Your task to perform on an android device: toggle priority inbox in the gmail app Image 0: 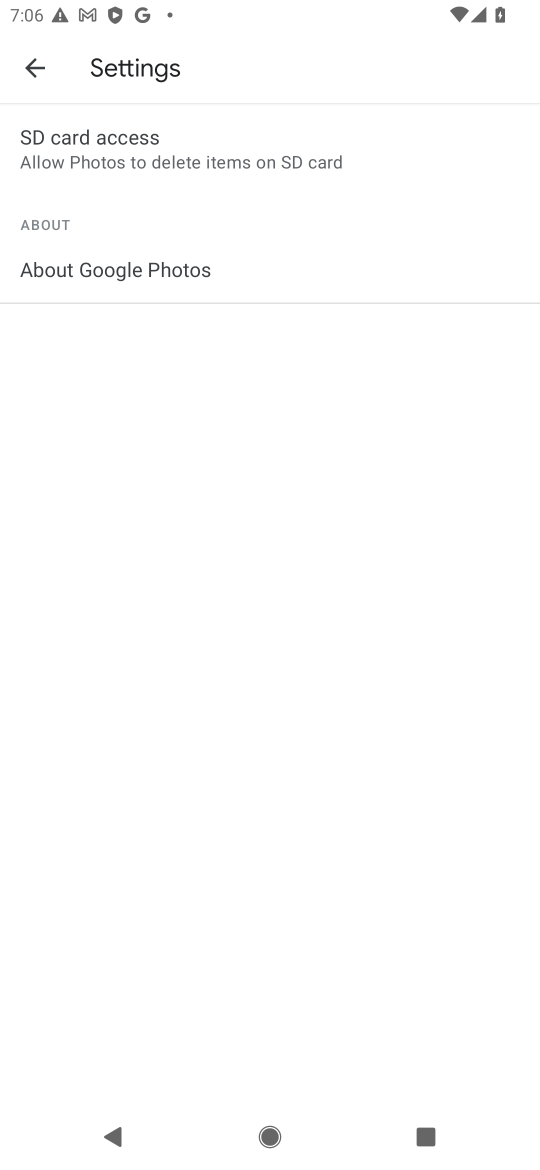
Step 0: press home button
Your task to perform on an android device: toggle priority inbox in the gmail app Image 1: 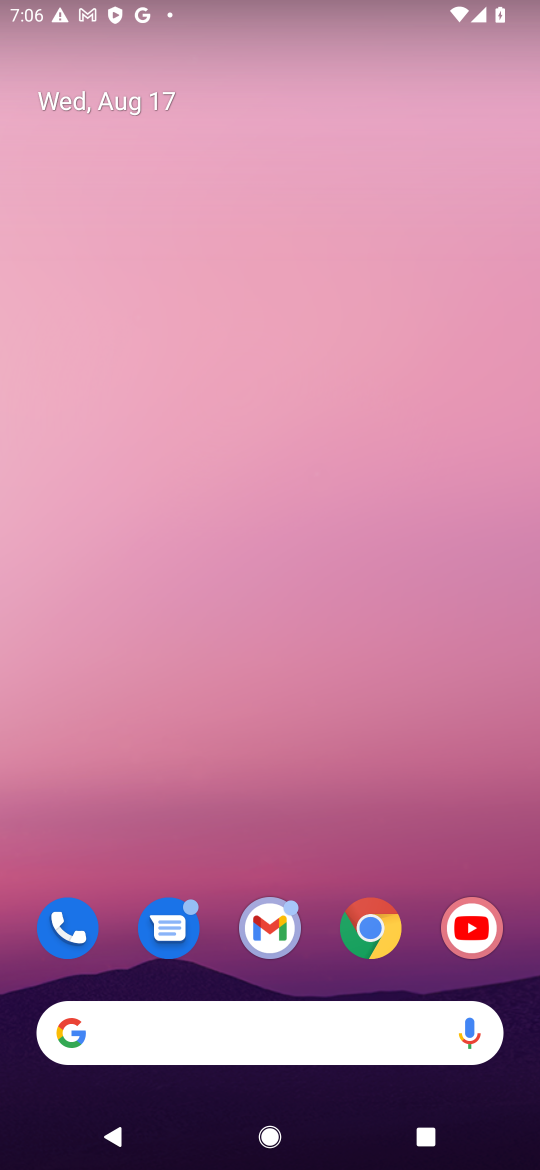
Step 1: click (286, 932)
Your task to perform on an android device: toggle priority inbox in the gmail app Image 2: 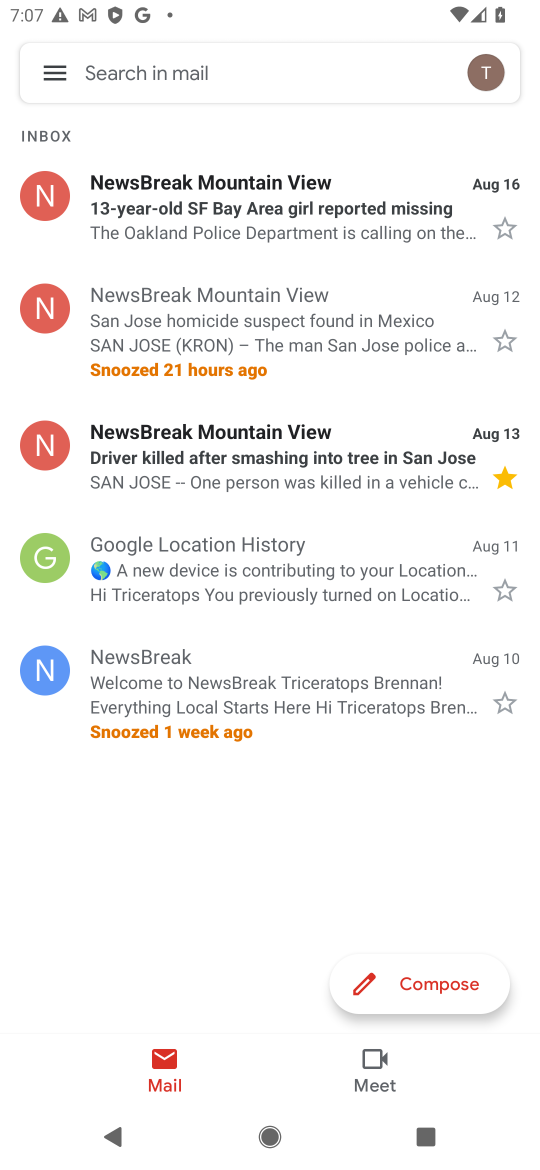
Step 2: click (320, 932)
Your task to perform on an android device: toggle priority inbox in the gmail app Image 3: 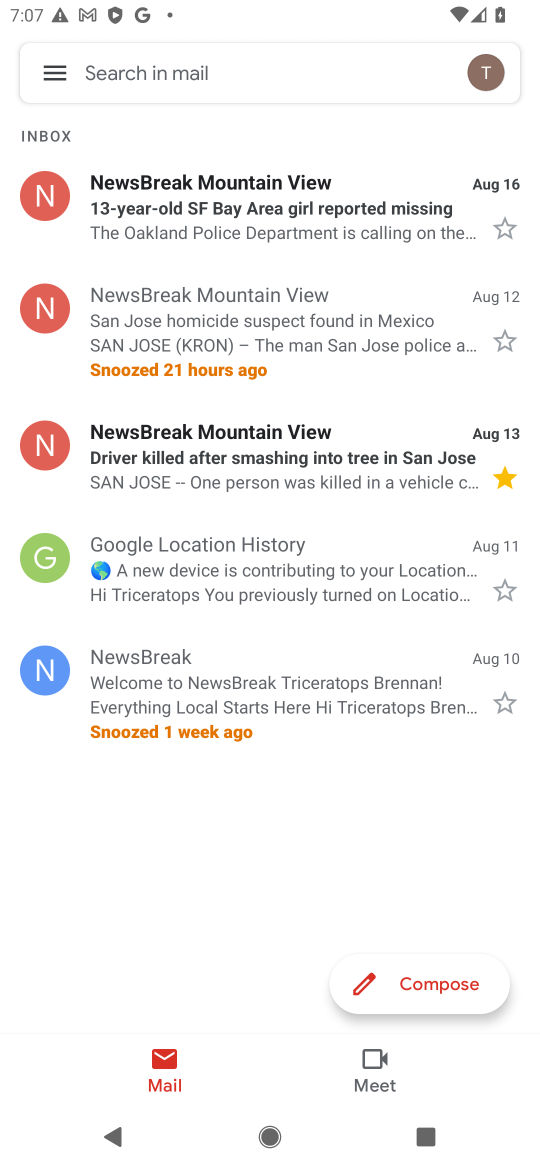
Step 3: click (51, 75)
Your task to perform on an android device: toggle priority inbox in the gmail app Image 4: 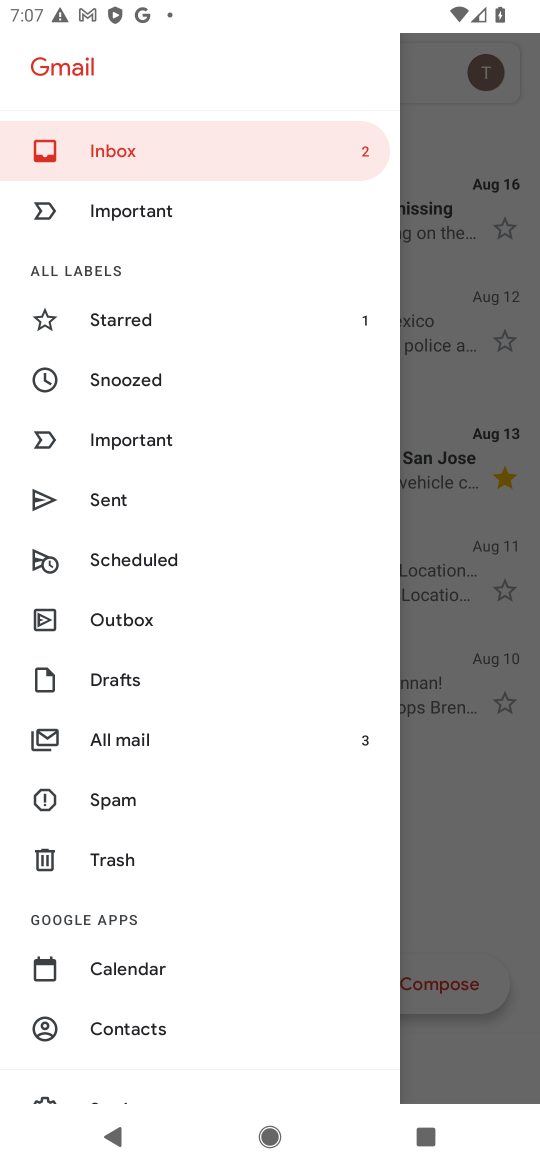
Step 4: drag from (144, 970) to (188, 409)
Your task to perform on an android device: toggle priority inbox in the gmail app Image 5: 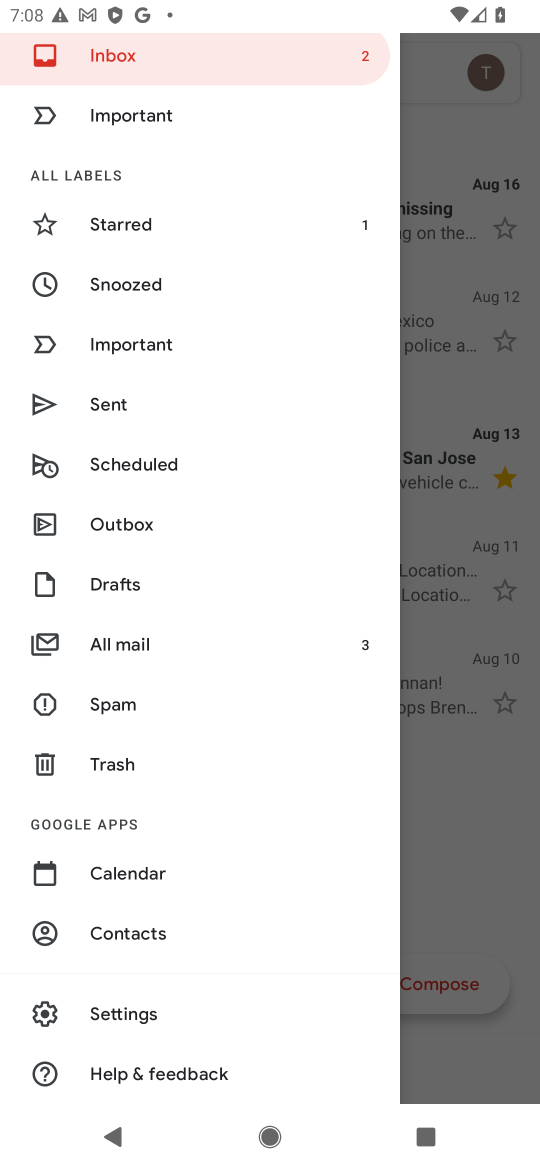
Step 5: click (134, 1019)
Your task to perform on an android device: toggle priority inbox in the gmail app Image 6: 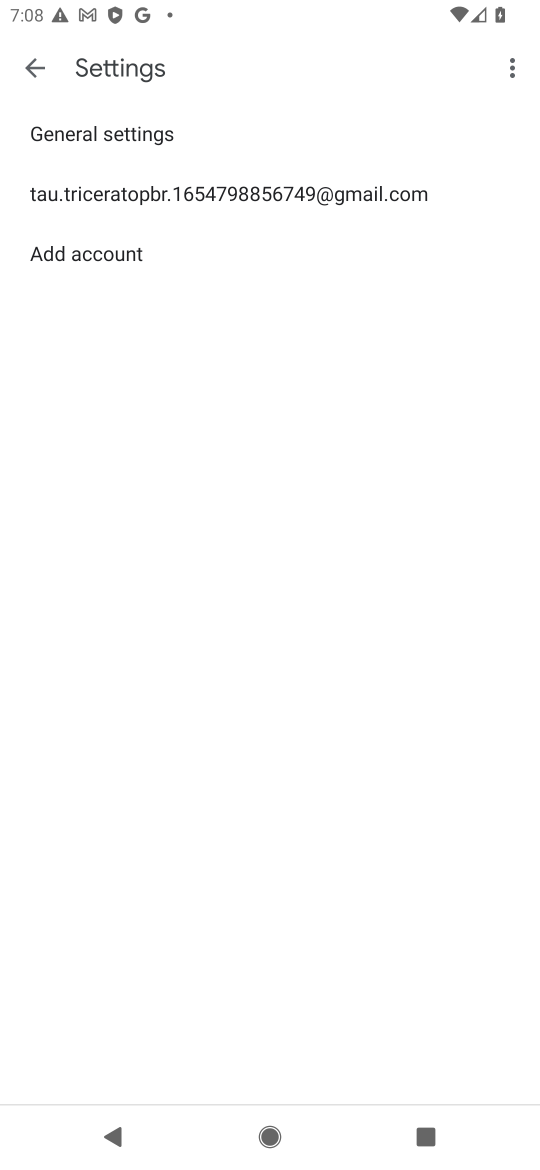
Step 6: click (211, 198)
Your task to perform on an android device: toggle priority inbox in the gmail app Image 7: 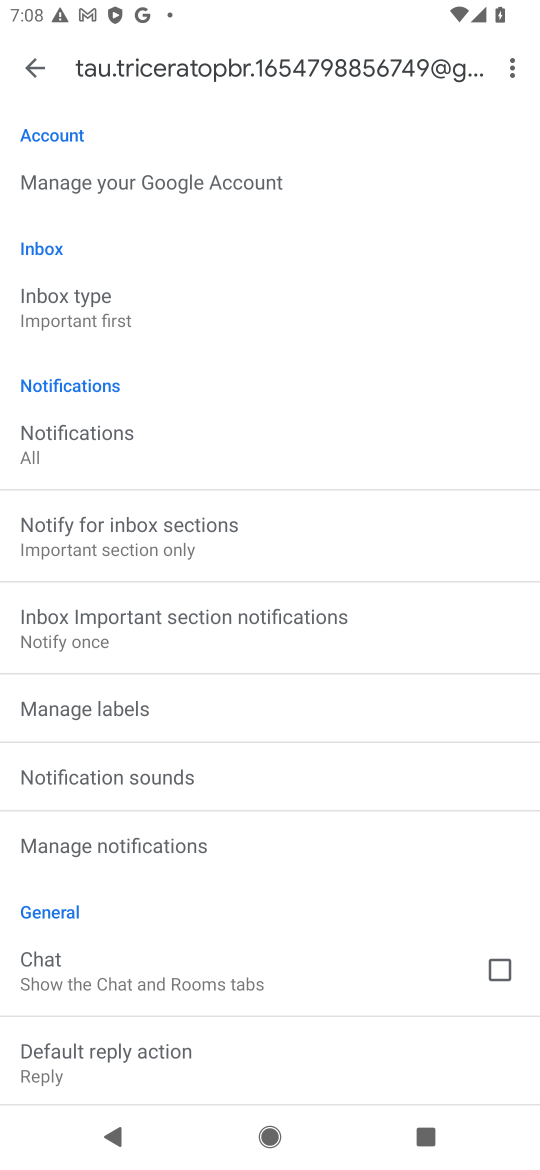
Step 7: click (36, 314)
Your task to perform on an android device: toggle priority inbox in the gmail app Image 8: 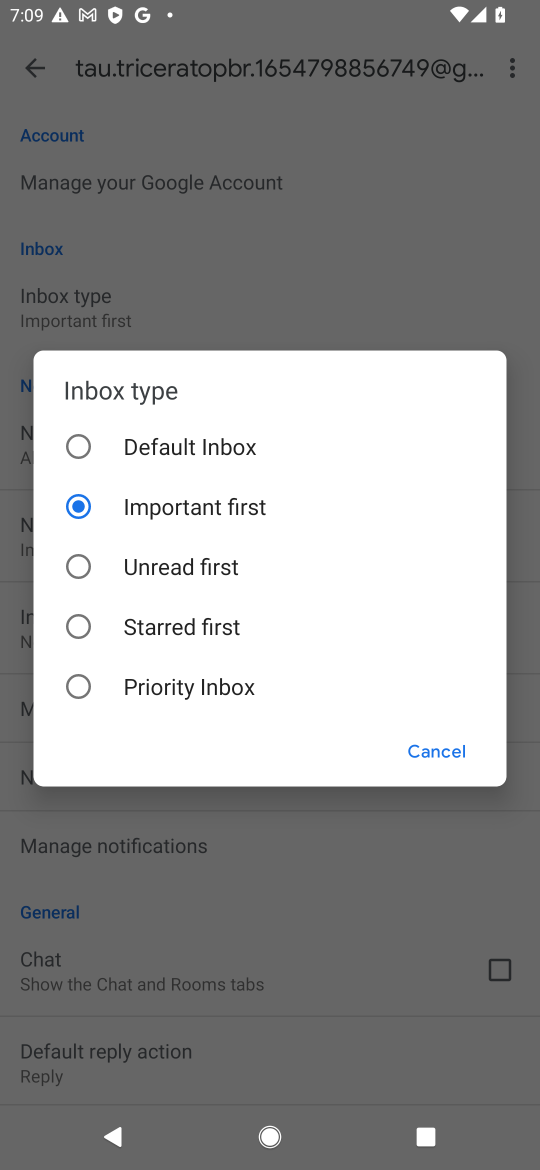
Step 8: click (143, 694)
Your task to perform on an android device: toggle priority inbox in the gmail app Image 9: 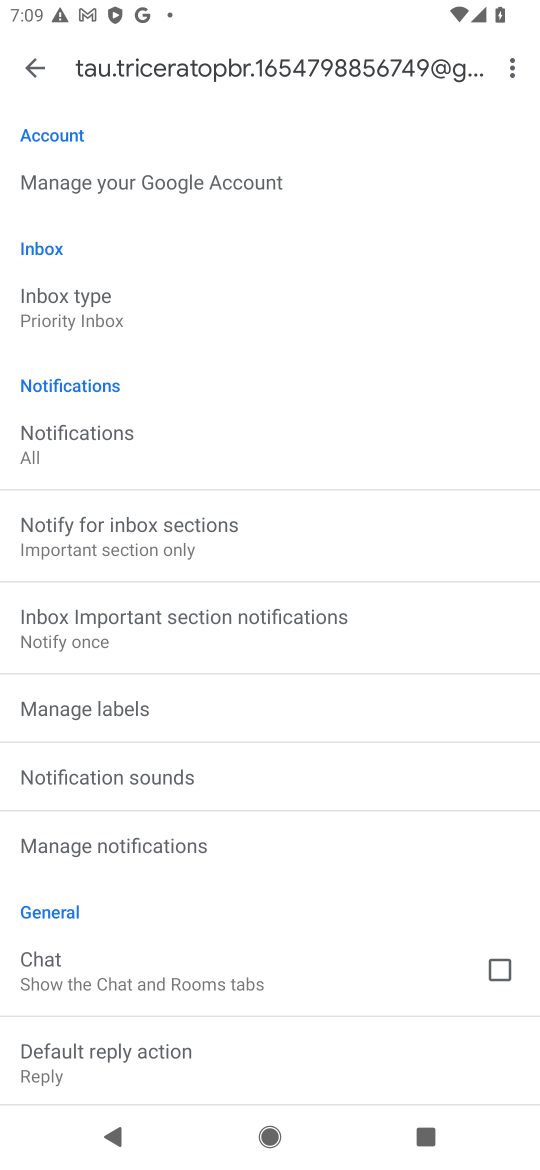
Step 9: task complete